Your task to perform on an android device: turn on notifications settings in the gmail app Image 0: 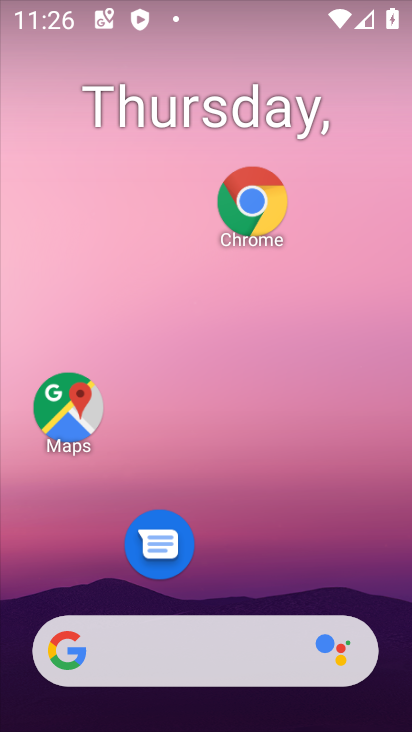
Step 0: press home button
Your task to perform on an android device: turn on notifications settings in the gmail app Image 1: 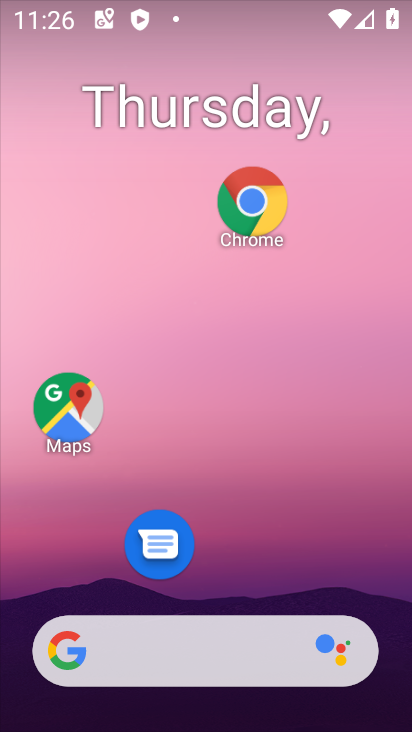
Step 1: click (249, 31)
Your task to perform on an android device: turn on notifications settings in the gmail app Image 2: 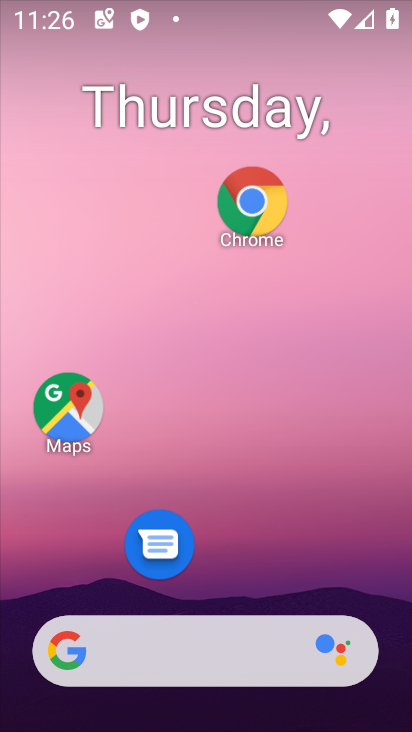
Step 2: drag from (219, 584) to (255, 27)
Your task to perform on an android device: turn on notifications settings in the gmail app Image 3: 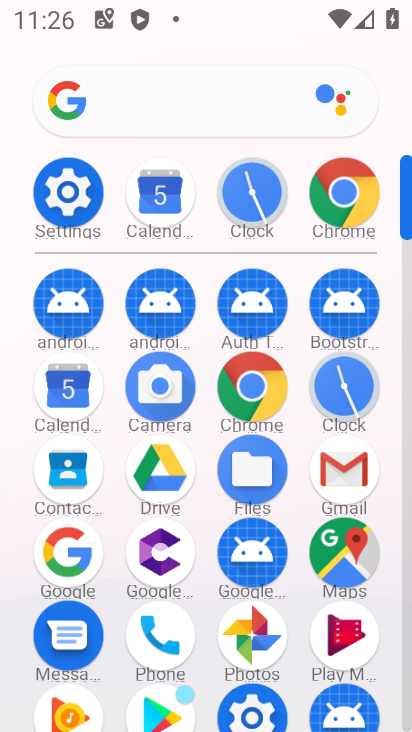
Step 3: click (341, 469)
Your task to perform on an android device: turn on notifications settings in the gmail app Image 4: 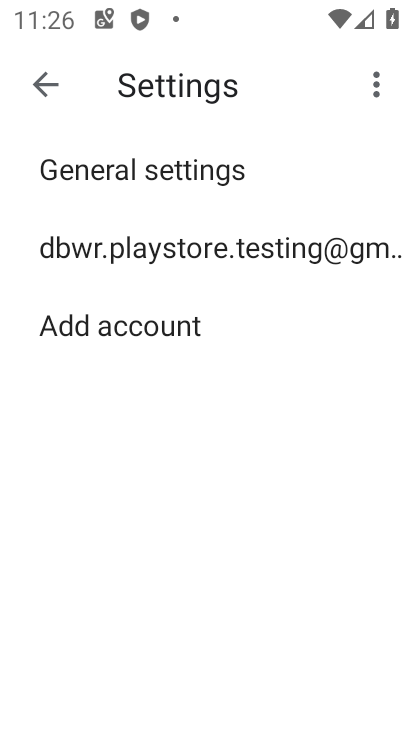
Step 4: click (43, 87)
Your task to perform on an android device: turn on notifications settings in the gmail app Image 5: 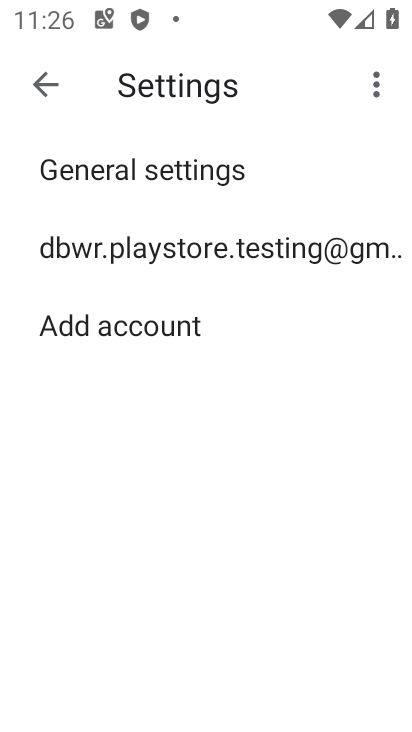
Step 5: click (52, 77)
Your task to perform on an android device: turn on notifications settings in the gmail app Image 6: 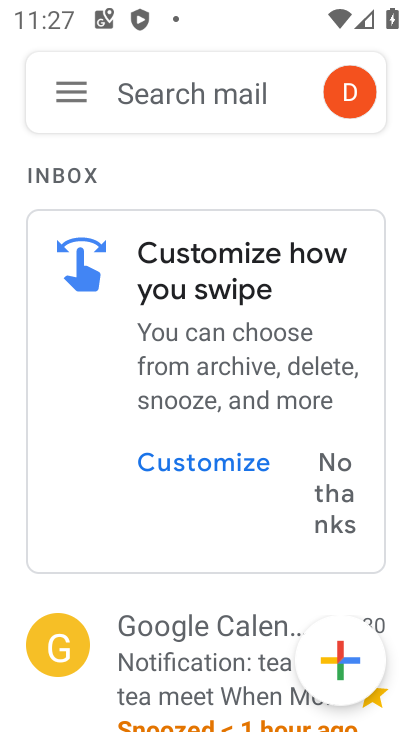
Step 6: click (65, 82)
Your task to perform on an android device: turn on notifications settings in the gmail app Image 7: 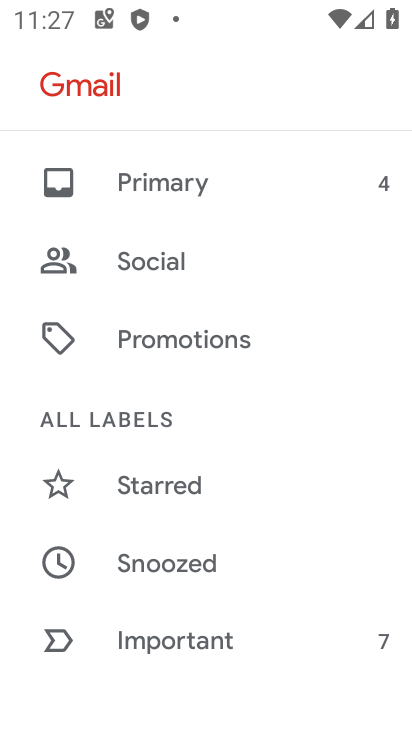
Step 7: drag from (130, 600) to (150, 121)
Your task to perform on an android device: turn on notifications settings in the gmail app Image 8: 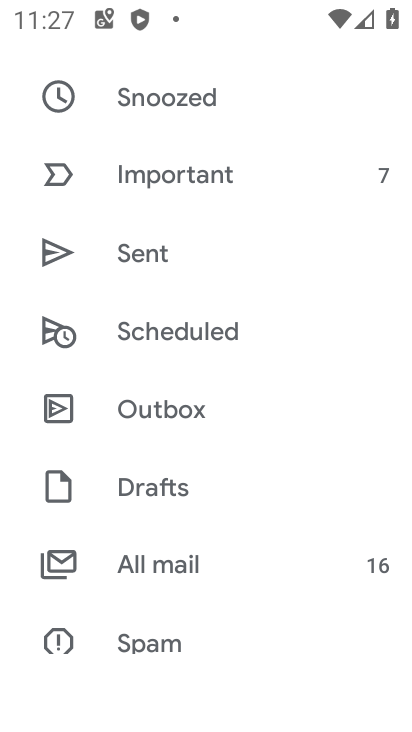
Step 8: drag from (139, 298) to (139, 114)
Your task to perform on an android device: turn on notifications settings in the gmail app Image 9: 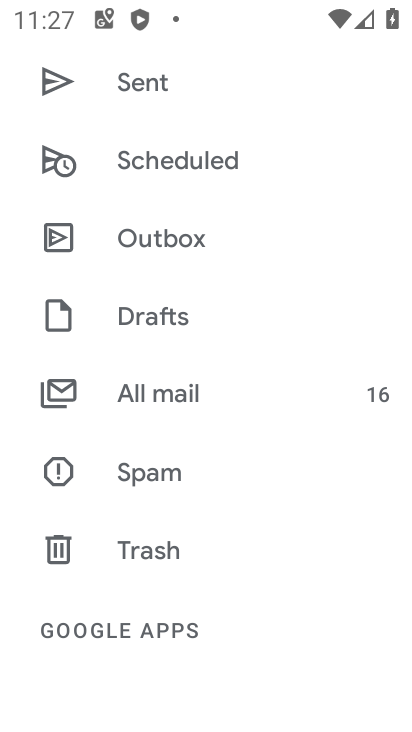
Step 9: drag from (145, 251) to (147, 61)
Your task to perform on an android device: turn on notifications settings in the gmail app Image 10: 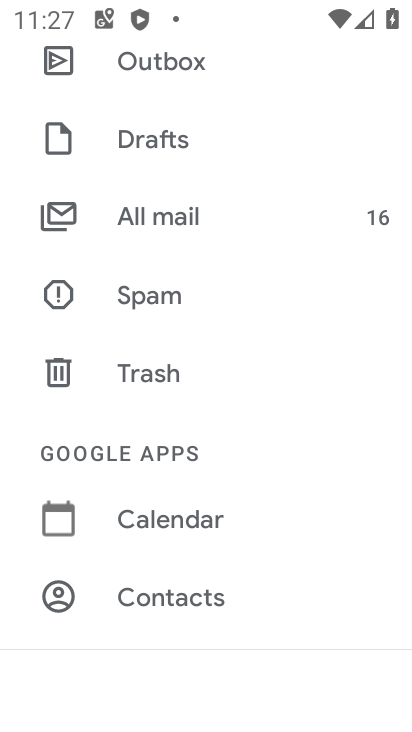
Step 10: drag from (148, 426) to (152, 64)
Your task to perform on an android device: turn on notifications settings in the gmail app Image 11: 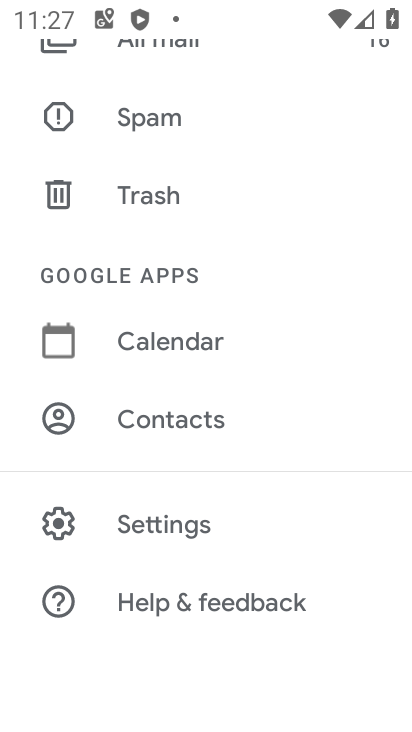
Step 11: click (129, 527)
Your task to perform on an android device: turn on notifications settings in the gmail app Image 12: 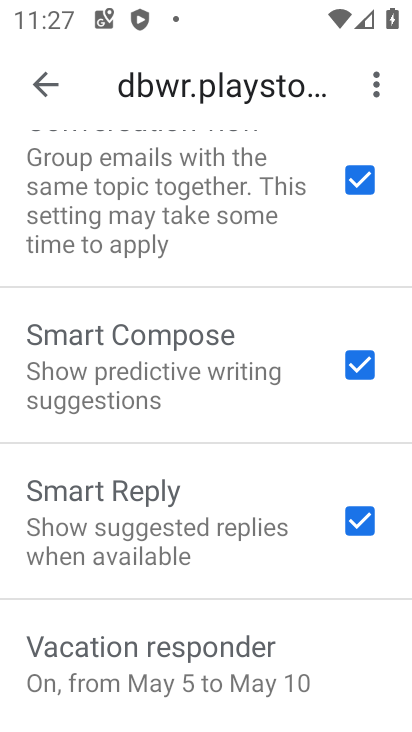
Step 12: click (49, 87)
Your task to perform on an android device: turn on notifications settings in the gmail app Image 13: 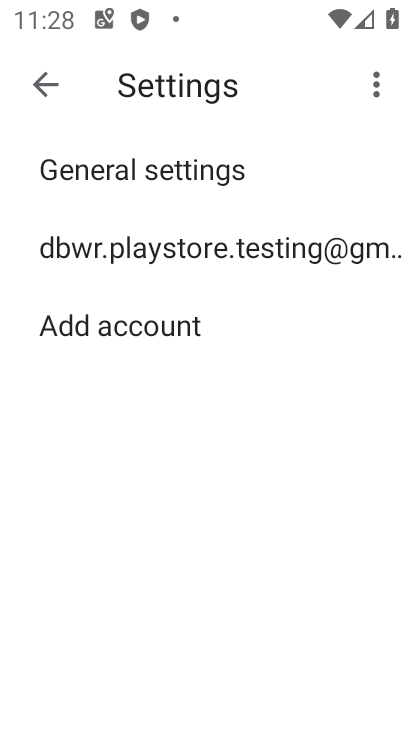
Step 13: click (174, 179)
Your task to perform on an android device: turn on notifications settings in the gmail app Image 14: 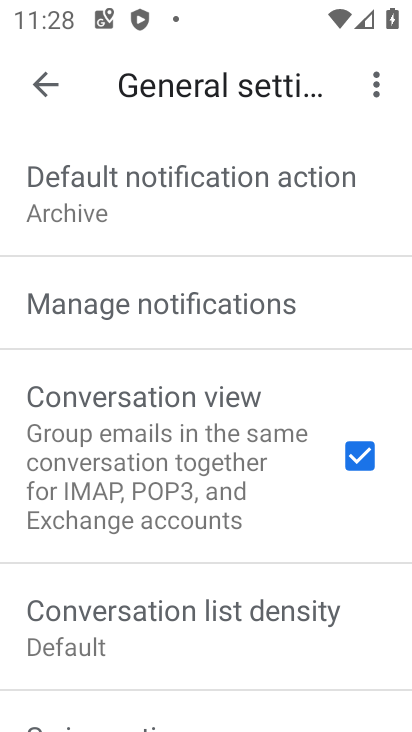
Step 14: click (199, 308)
Your task to perform on an android device: turn on notifications settings in the gmail app Image 15: 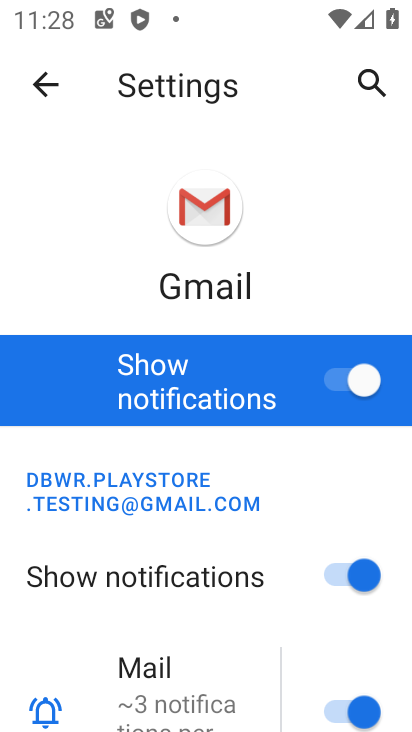
Step 15: task complete